Your task to perform on an android device: Go to display settings Image 0: 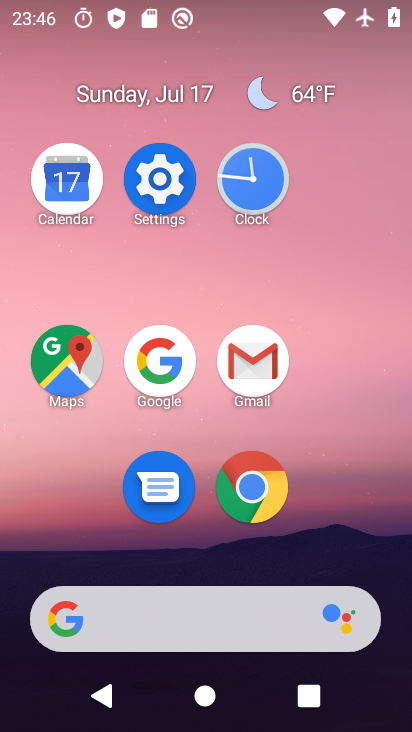
Step 0: click (176, 168)
Your task to perform on an android device: Go to display settings Image 1: 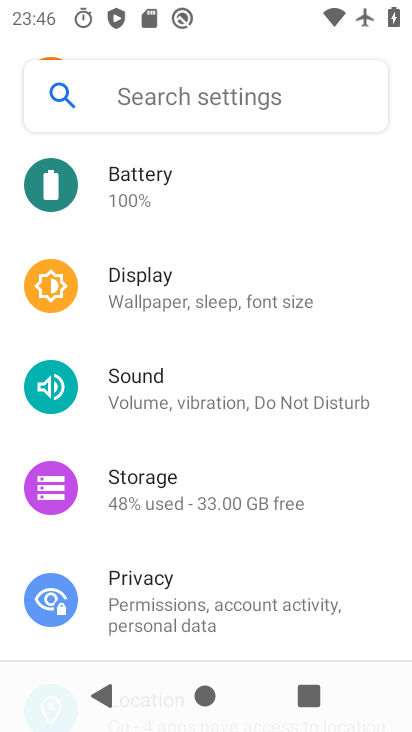
Step 1: click (218, 297)
Your task to perform on an android device: Go to display settings Image 2: 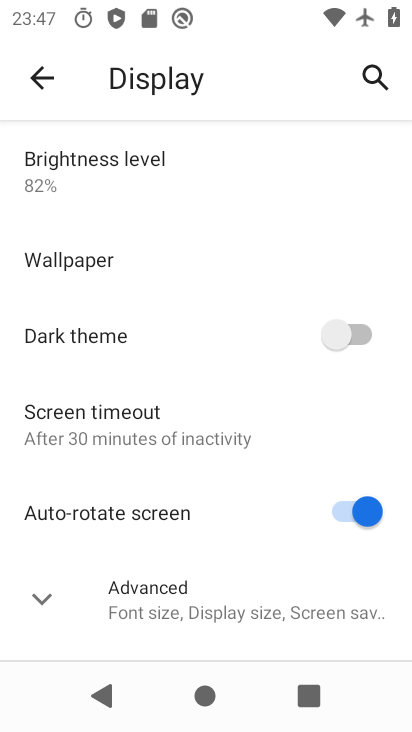
Step 2: task complete